Your task to perform on an android device: Go to privacy settings Image 0: 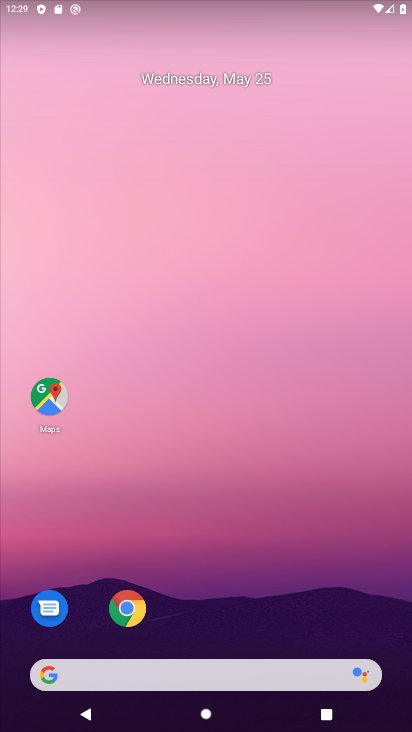
Step 0: drag from (257, 710) to (246, 187)
Your task to perform on an android device: Go to privacy settings Image 1: 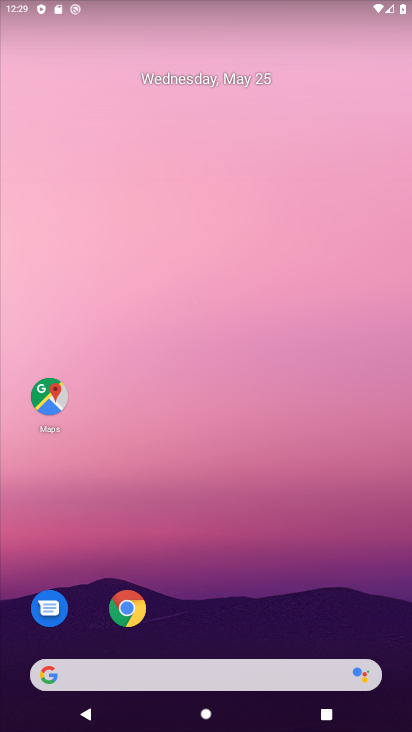
Step 1: drag from (265, 720) to (286, 102)
Your task to perform on an android device: Go to privacy settings Image 2: 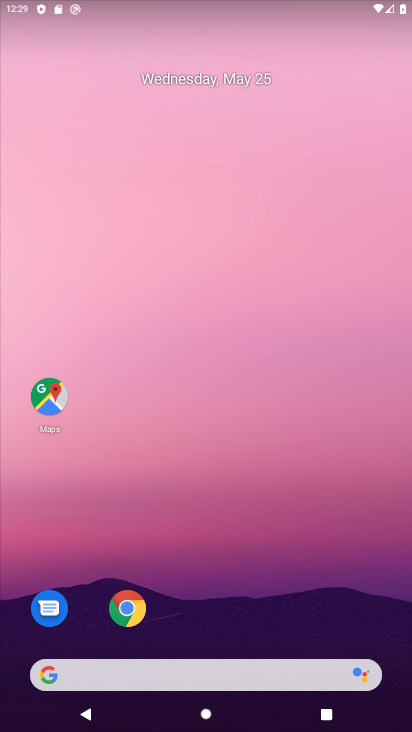
Step 2: drag from (289, 726) to (292, 8)
Your task to perform on an android device: Go to privacy settings Image 3: 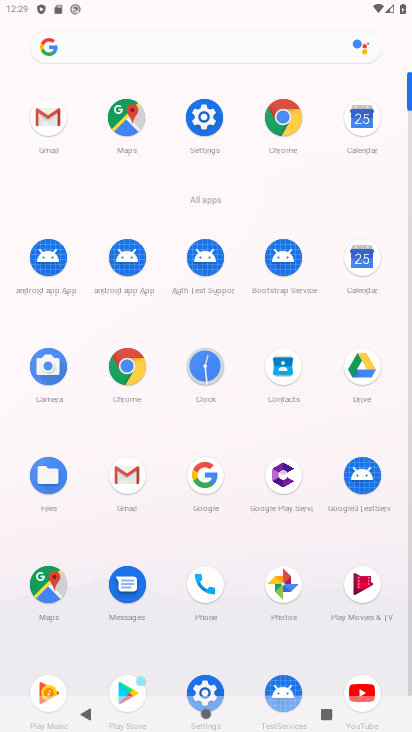
Step 3: click (203, 169)
Your task to perform on an android device: Go to privacy settings Image 4: 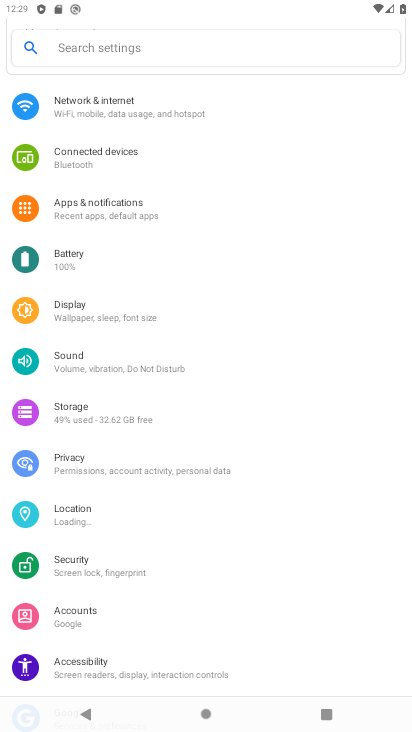
Step 4: click (128, 460)
Your task to perform on an android device: Go to privacy settings Image 5: 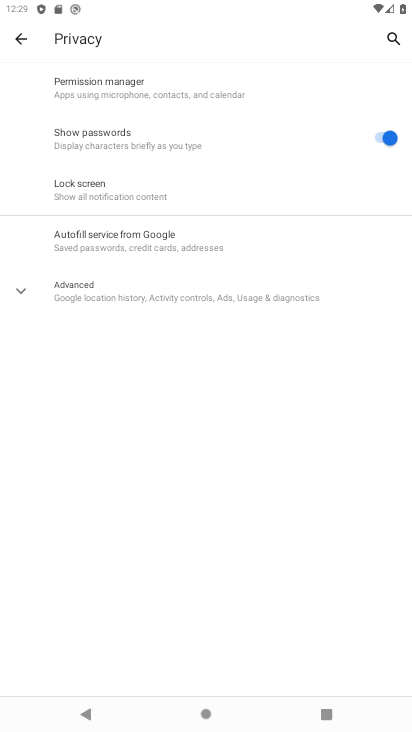
Step 5: task complete